Your task to perform on an android device: Open maps Image 0: 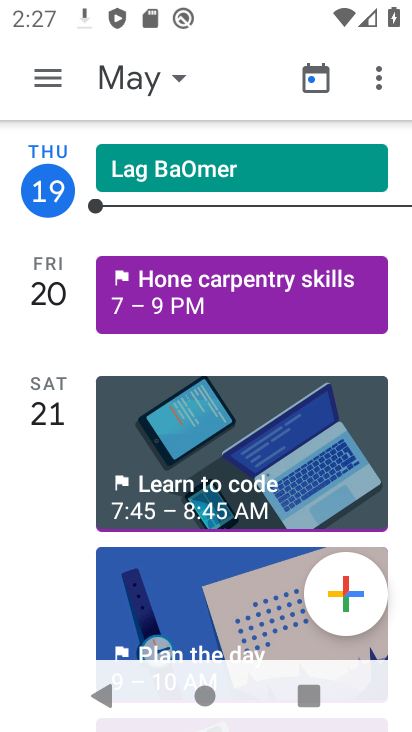
Step 0: press home button
Your task to perform on an android device: Open maps Image 1: 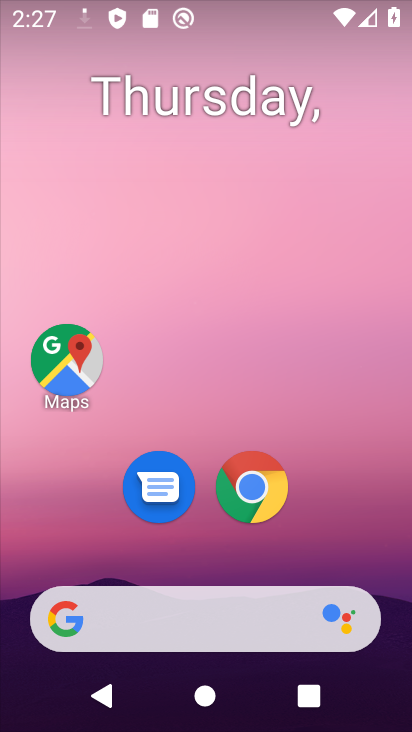
Step 1: click (68, 370)
Your task to perform on an android device: Open maps Image 2: 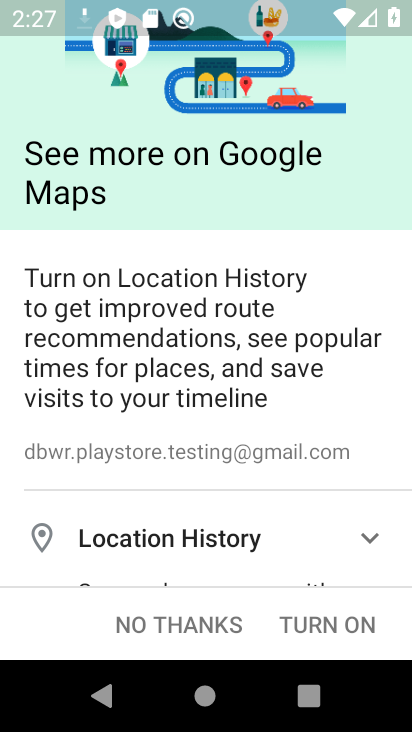
Step 2: click (177, 626)
Your task to perform on an android device: Open maps Image 3: 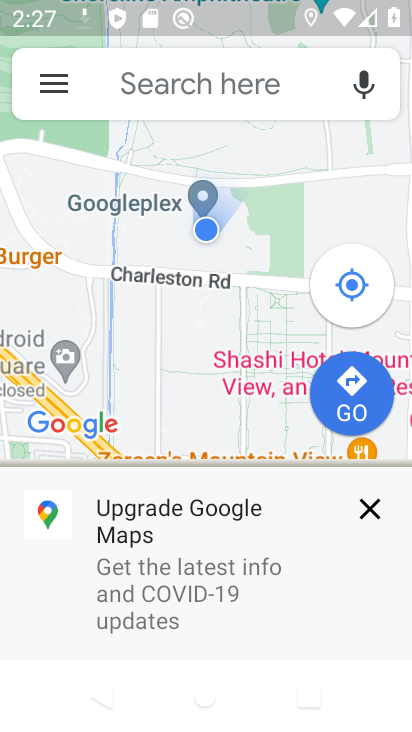
Step 3: task complete